Your task to perform on an android device: find snoozed emails in the gmail app Image 0: 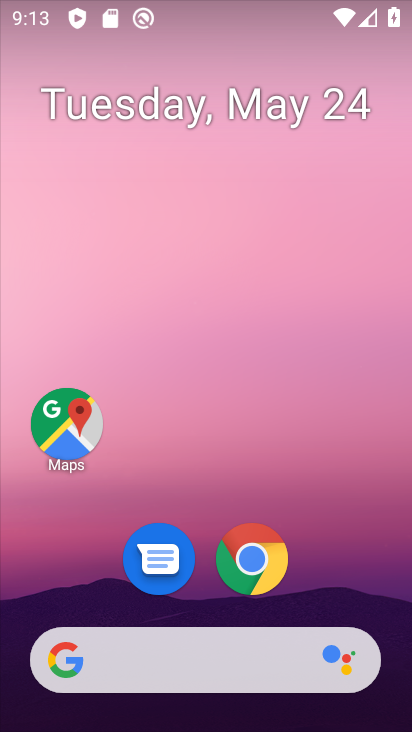
Step 0: drag from (403, 570) to (374, 60)
Your task to perform on an android device: find snoozed emails in the gmail app Image 1: 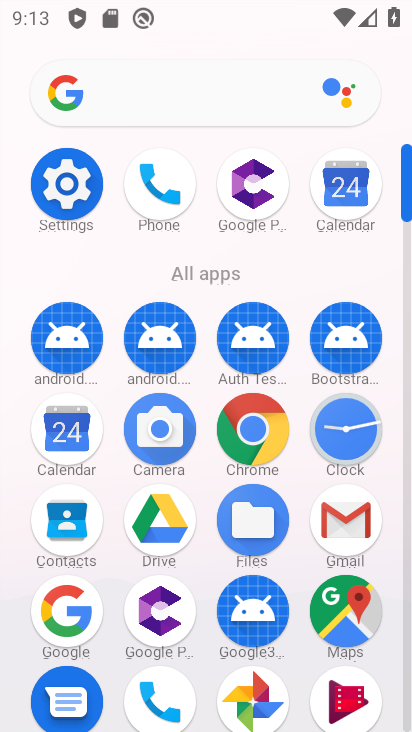
Step 1: click (327, 517)
Your task to perform on an android device: find snoozed emails in the gmail app Image 2: 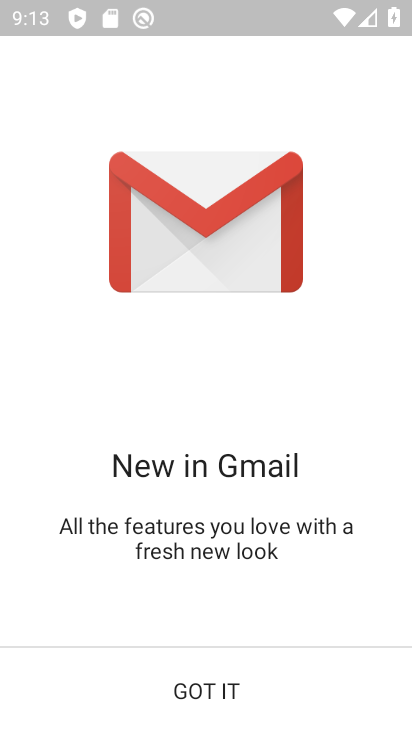
Step 2: click (264, 667)
Your task to perform on an android device: find snoozed emails in the gmail app Image 3: 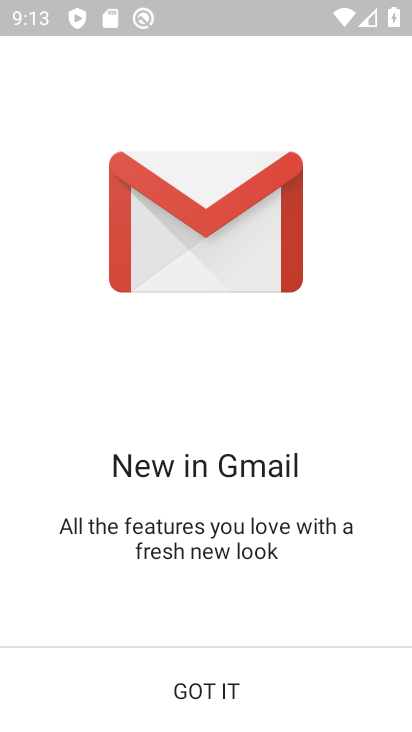
Step 3: click (264, 667)
Your task to perform on an android device: find snoozed emails in the gmail app Image 4: 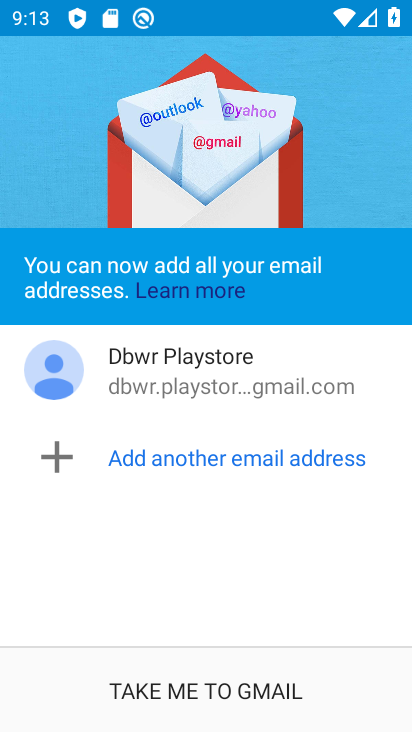
Step 4: click (264, 667)
Your task to perform on an android device: find snoozed emails in the gmail app Image 5: 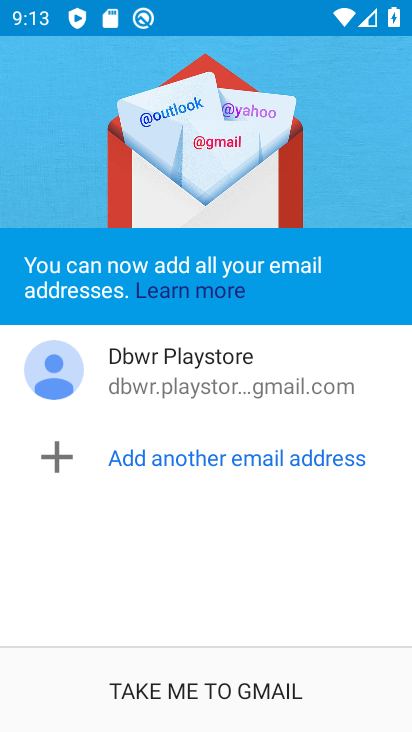
Step 5: click (264, 667)
Your task to perform on an android device: find snoozed emails in the gmail app Image 6: 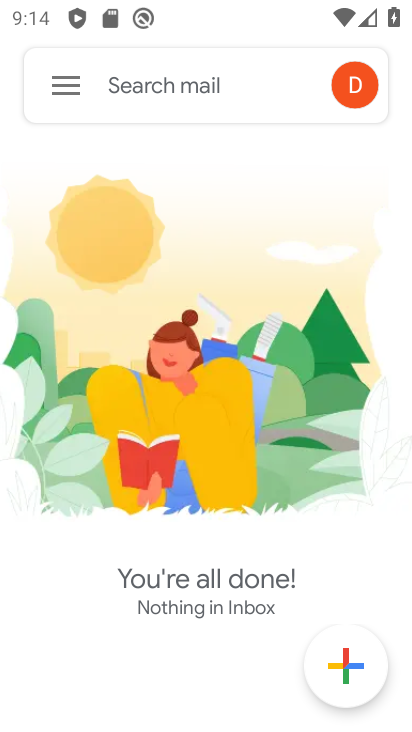
Step 6: click (65, 96)
Your task to perform on an android device: find snoozed emails in the gmail app Image 7: 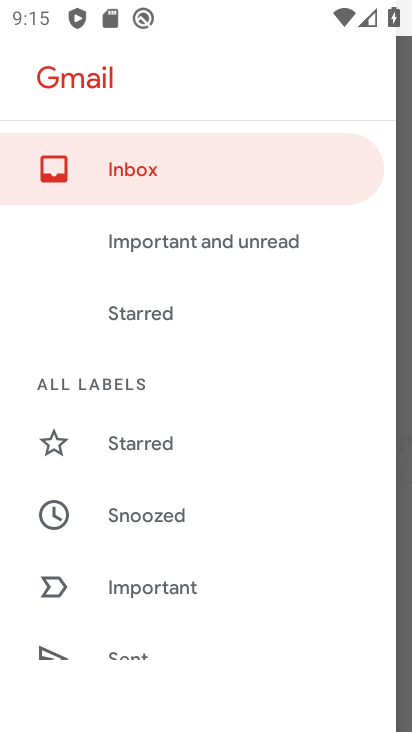
Step 7: task complete